Your task to perform on an android device: Open Amazon Image 0: 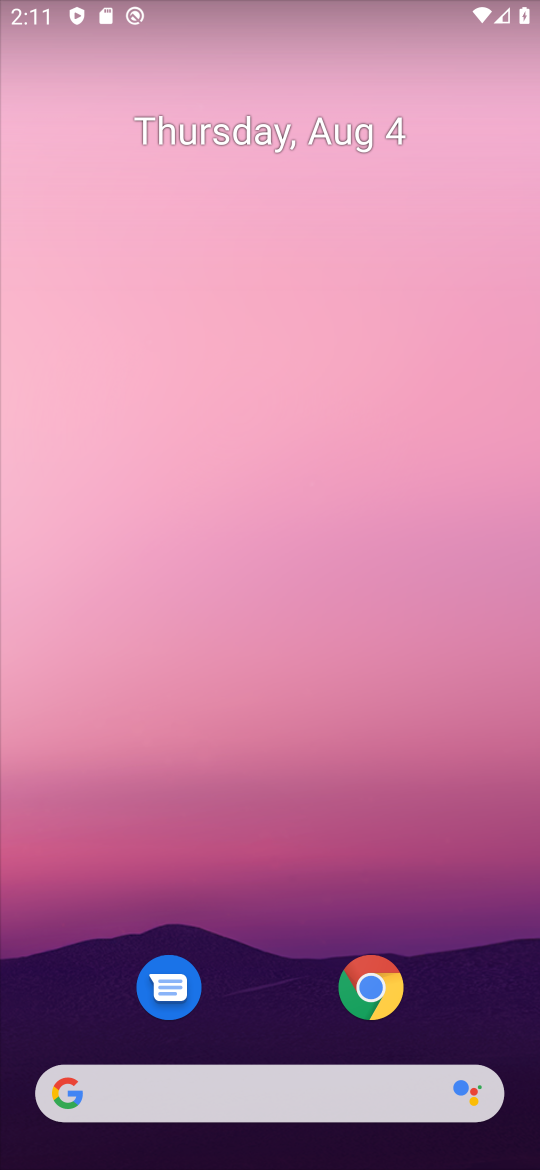
Step 0: press home button
Your task to perform on an android device: Open Amazon Image 1: 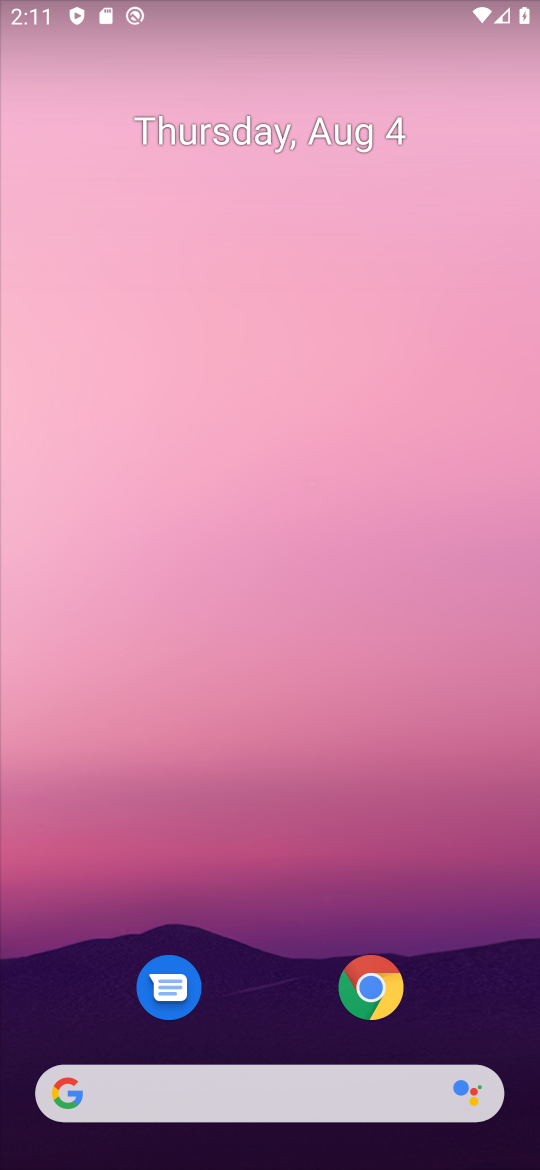
Step 1: drag from (487, 976) to (367, 174)
Your task to perform on an android device: Open Amazon Image 2: 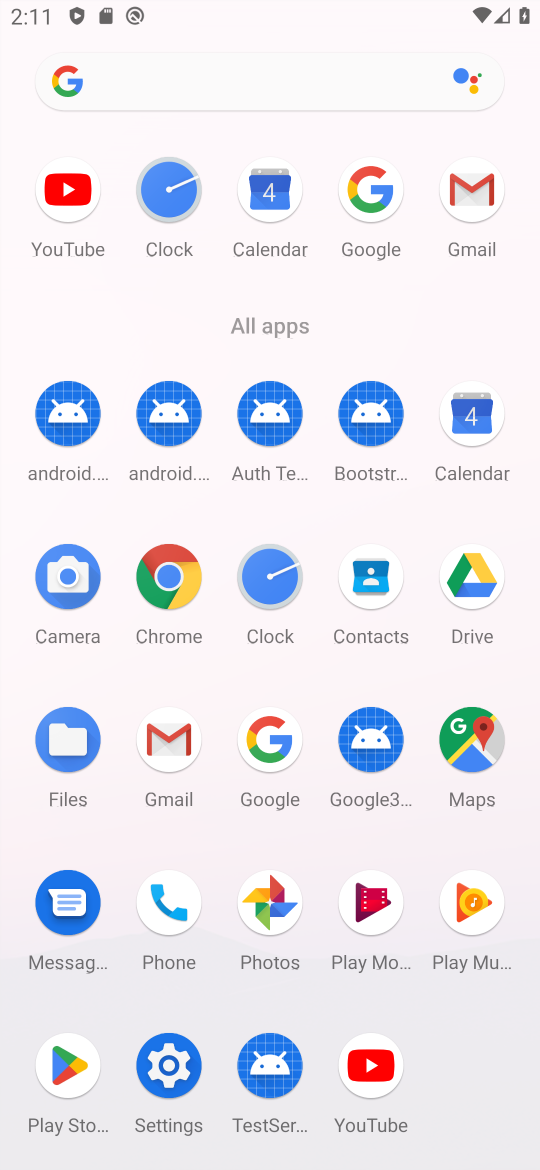
Step 2: click (286, 748)
Your task to perform on an android device: Open Amazon Image 3: 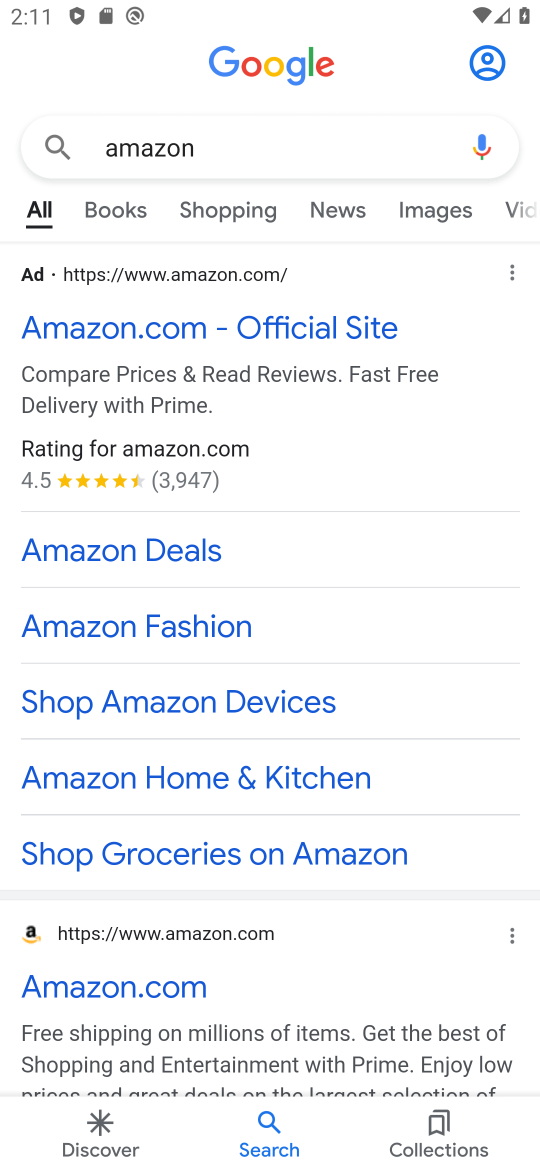
Step 3: press back button
Your task to perform on an android device: Open Amazon Image 4: 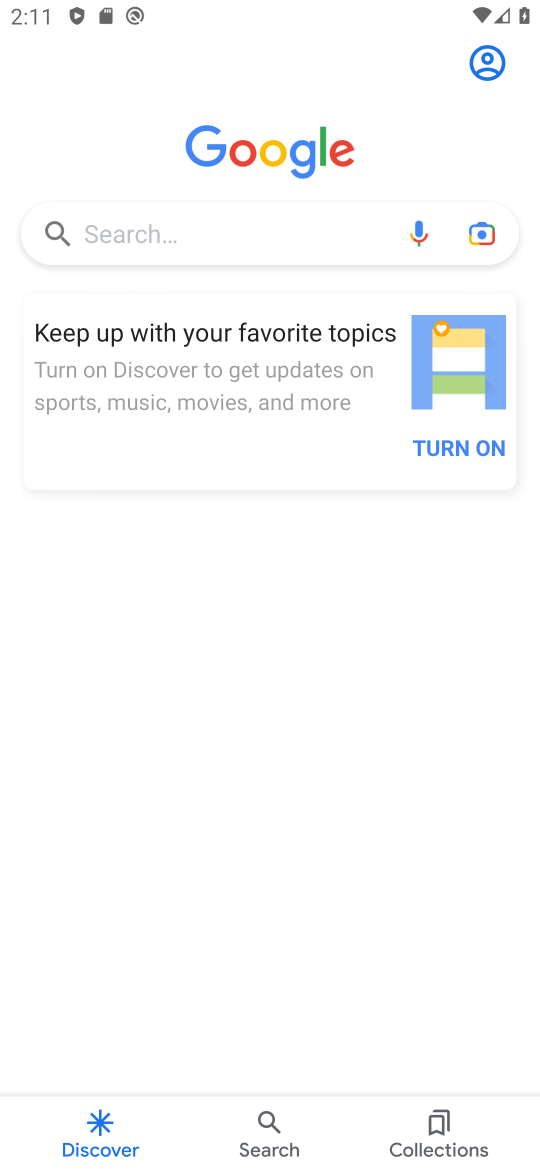
Step 4: click (118, 232)
Your task to perform on an android device: Open Amazon Image 5: 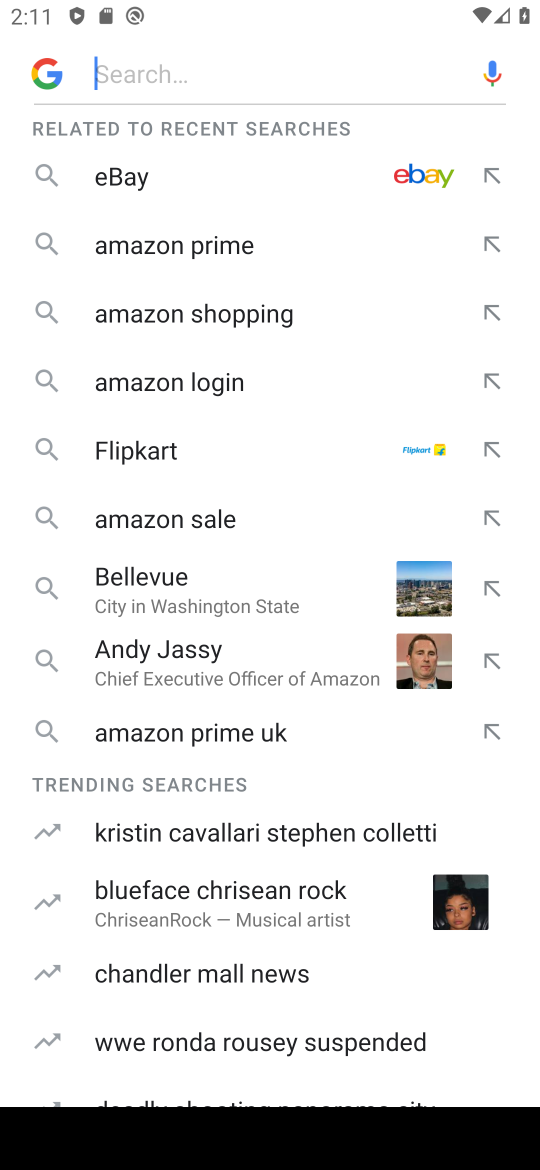
Step 5: type "Amazon"
Your task to perform on an android device: Open Amazon Image 6: 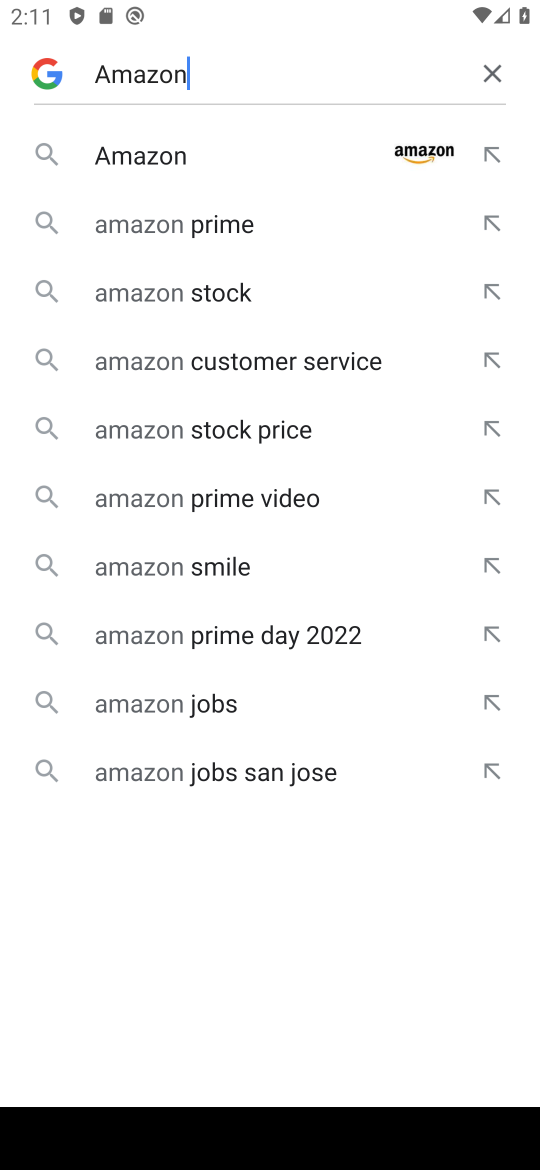
Step 6: click (159, 159)
Your task to perform on an android device: Open Amazon Image 7: 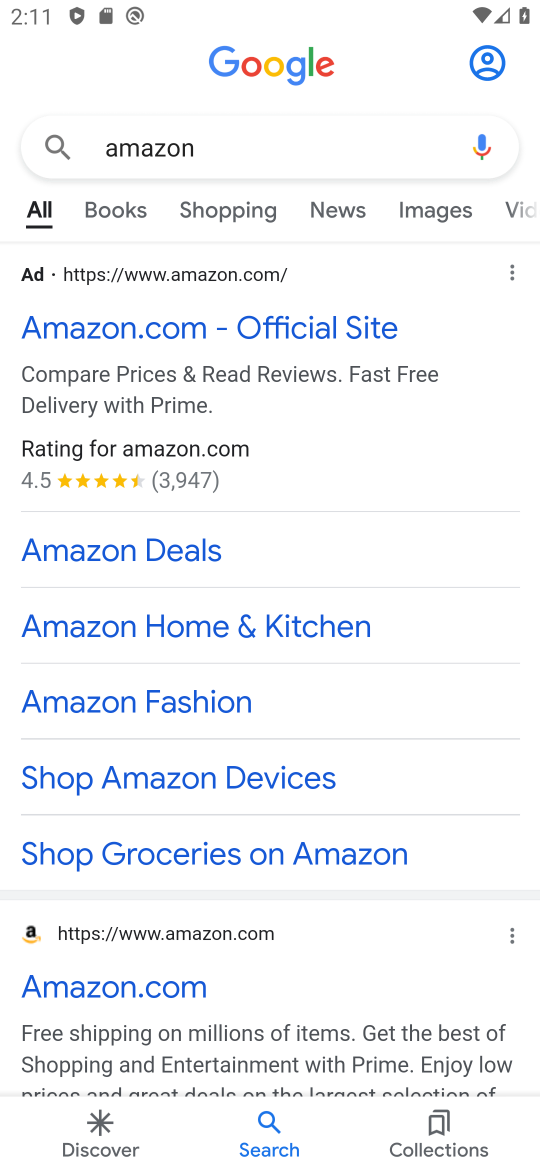
Step 7: task complete